Your task to perform on an android device: Add razer deathadder to the cart on costco Image 0: 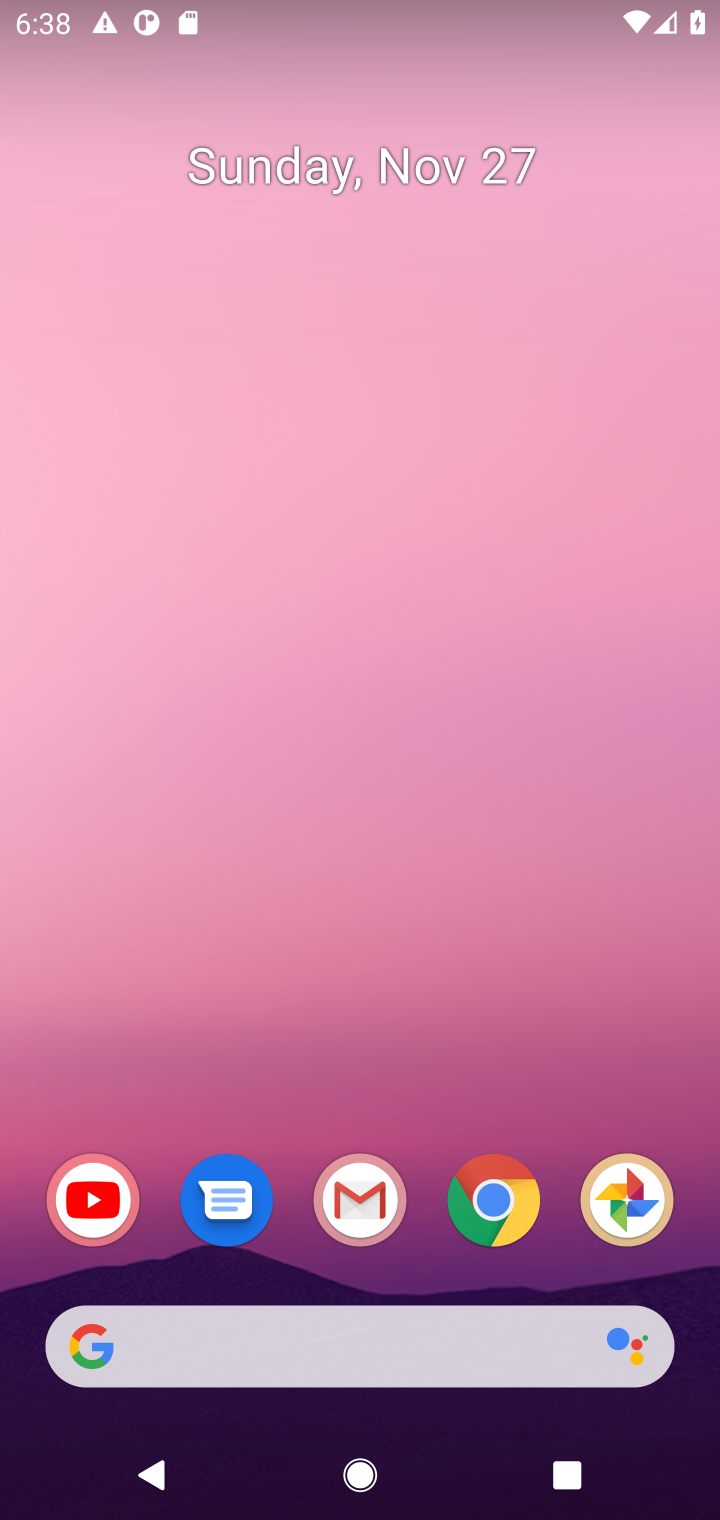
Step 0: click (494, 1229)
Your task to perform on an android device: Add razer deathadder to the cart on costco Image 1: 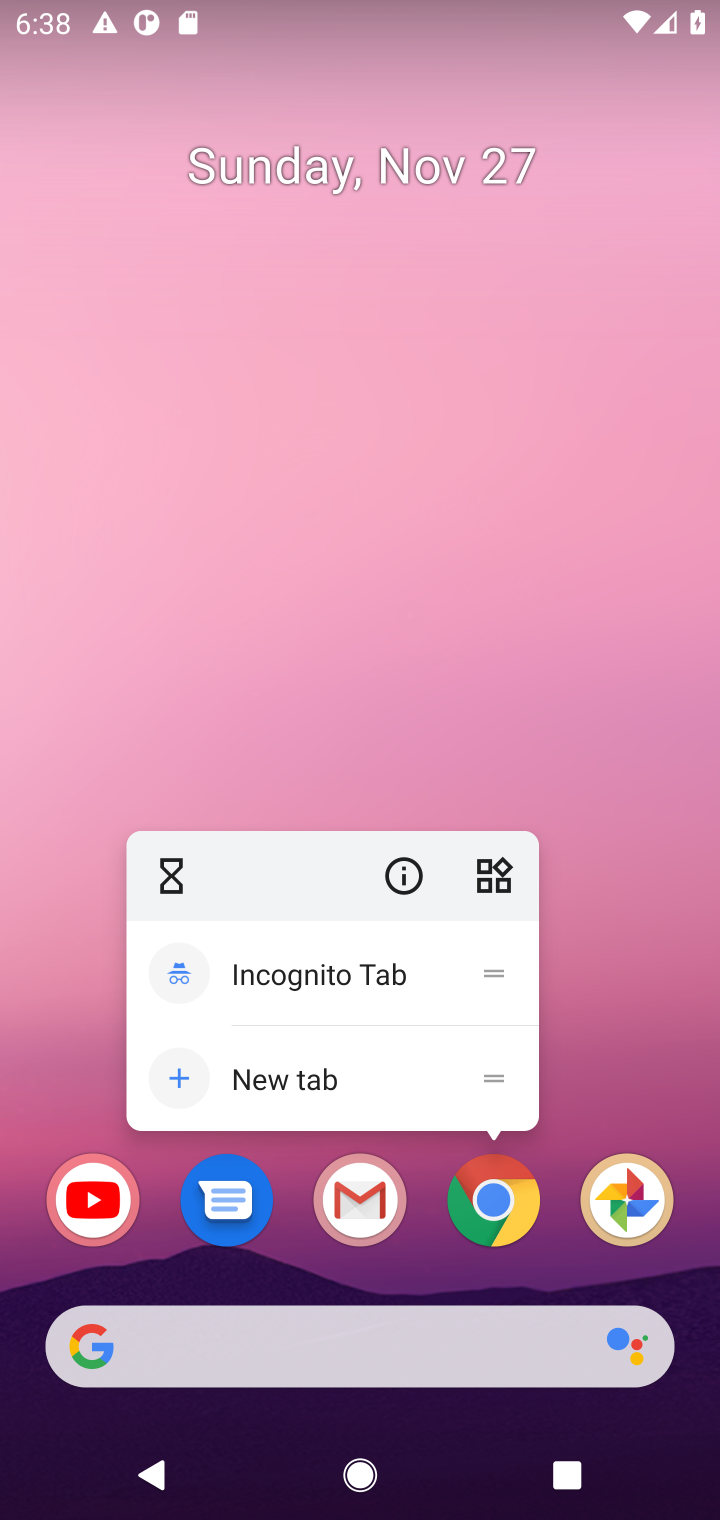
Step 1: click (497, 1204)
Your task to perform on an android device: Add razer deathadder to the cart on costco Image 2: 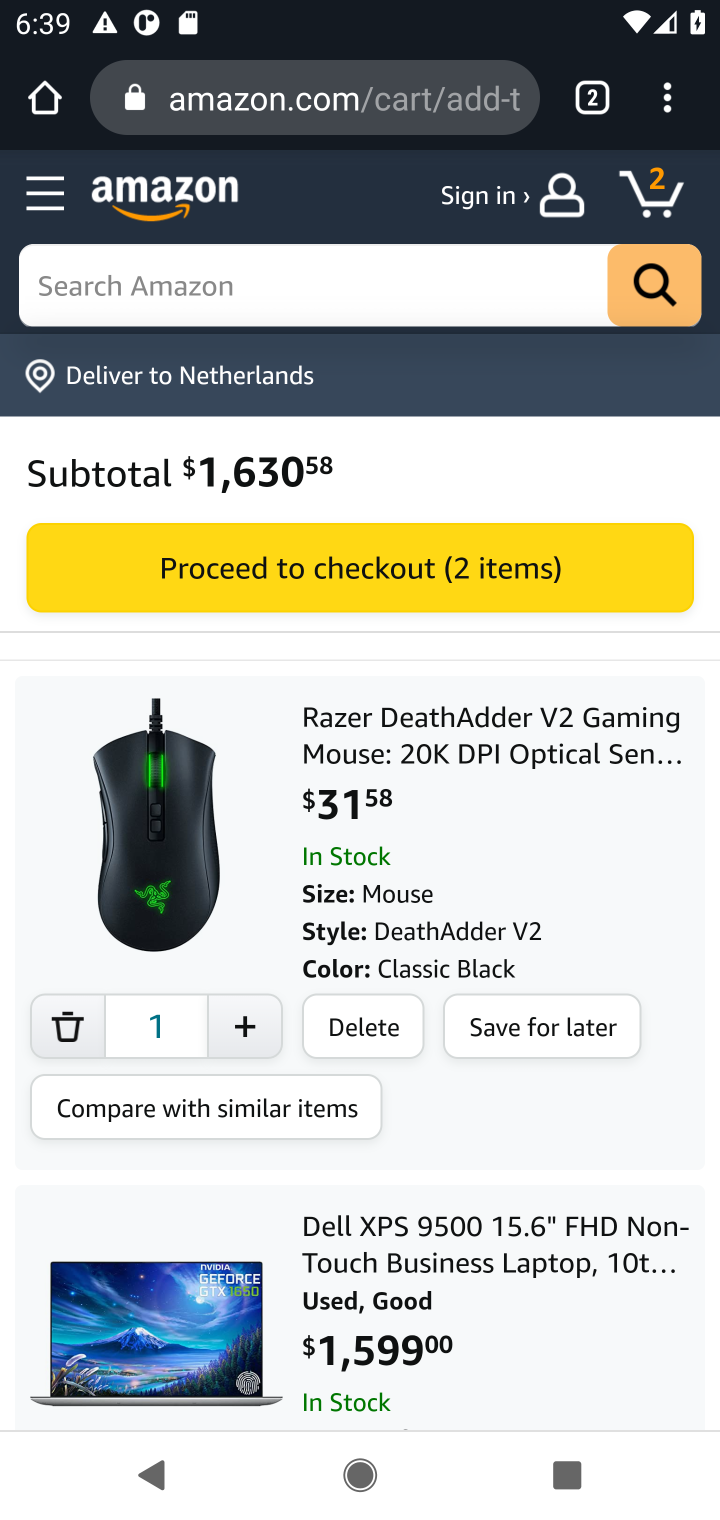
Step 2: click (319, 110)
Your task to perform on an android device: Add razer deathadder to the cart on costco Image 3: 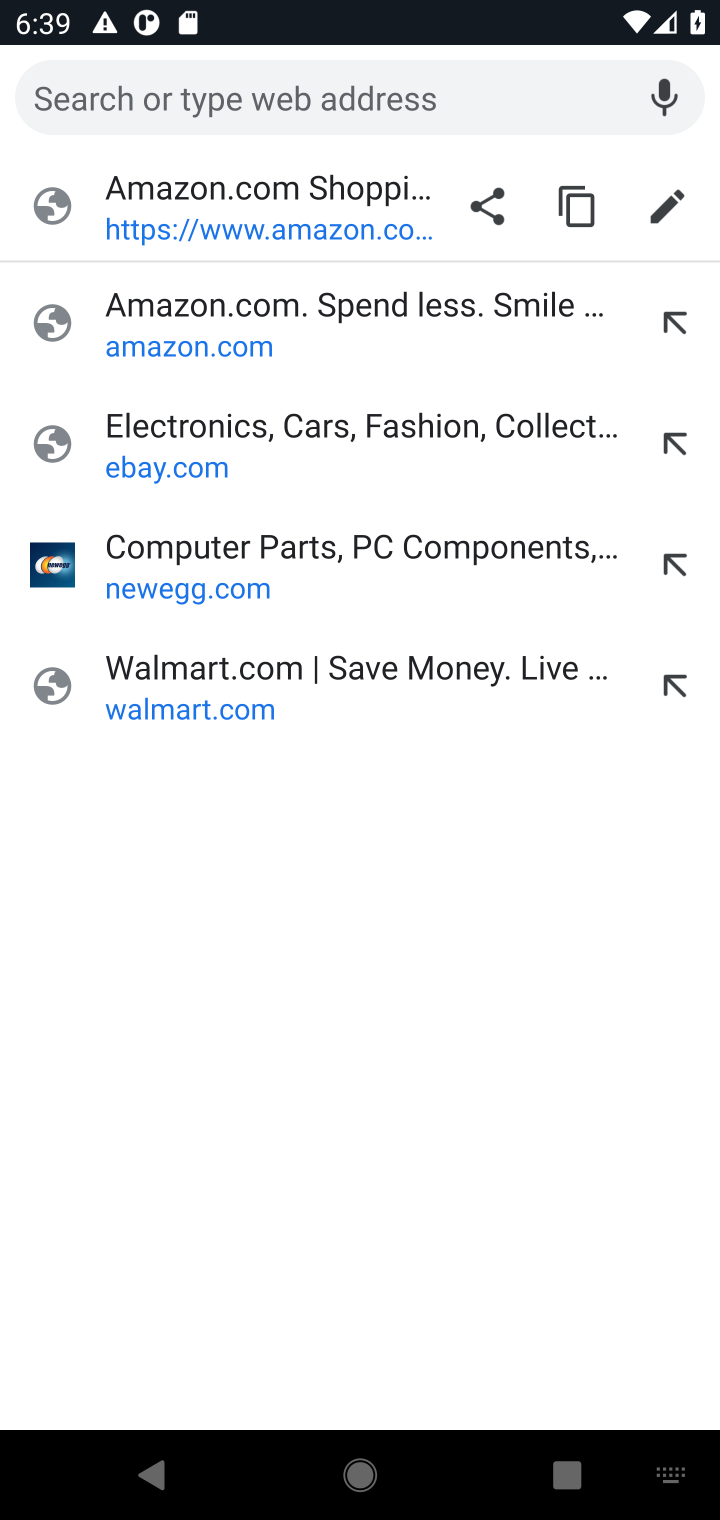
Step 3: type "costco.com"
Your task to perform on an android device: Add razer deathadder to the cart on costco Image 4: 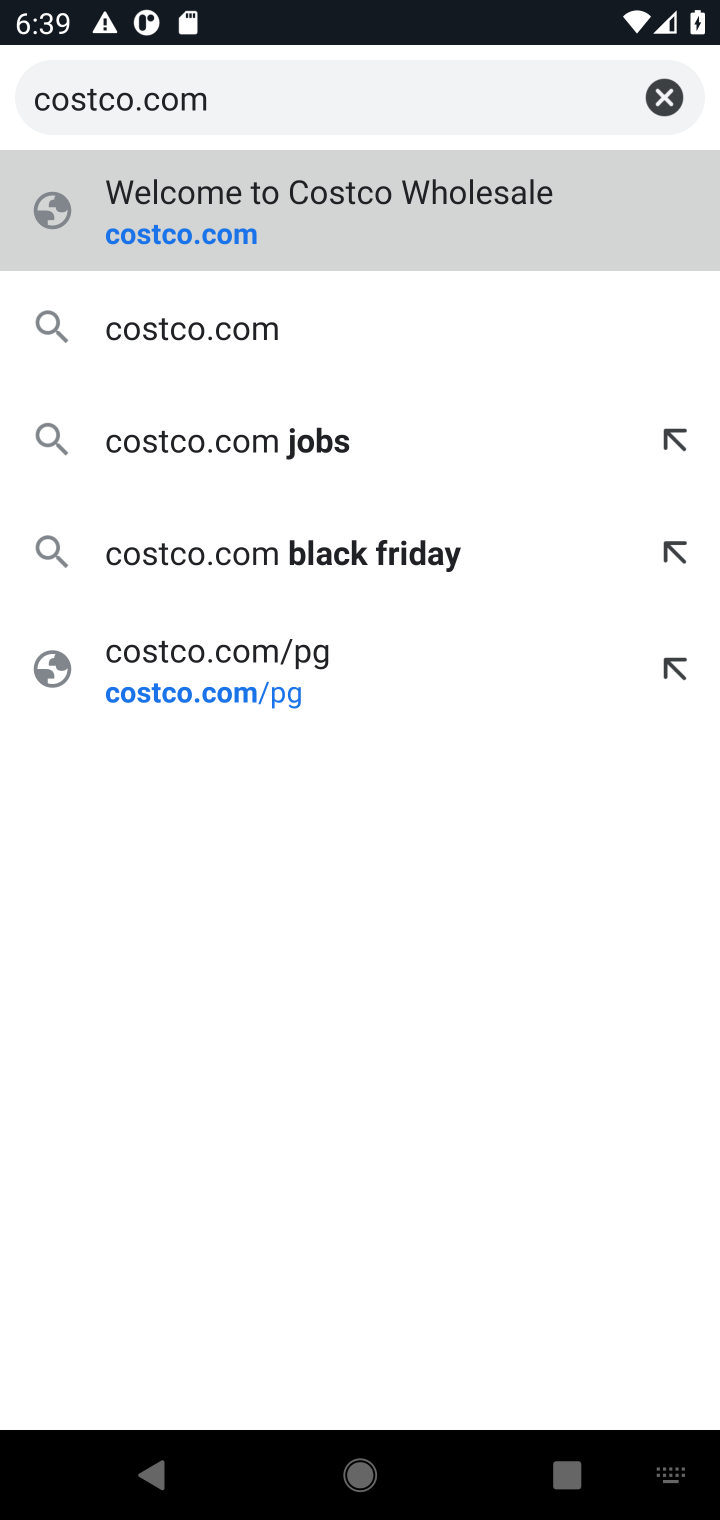
Step 4: click (130, 244)
Your task to perform on an android device: Add razer deathadder to the cart on costco Image 5: 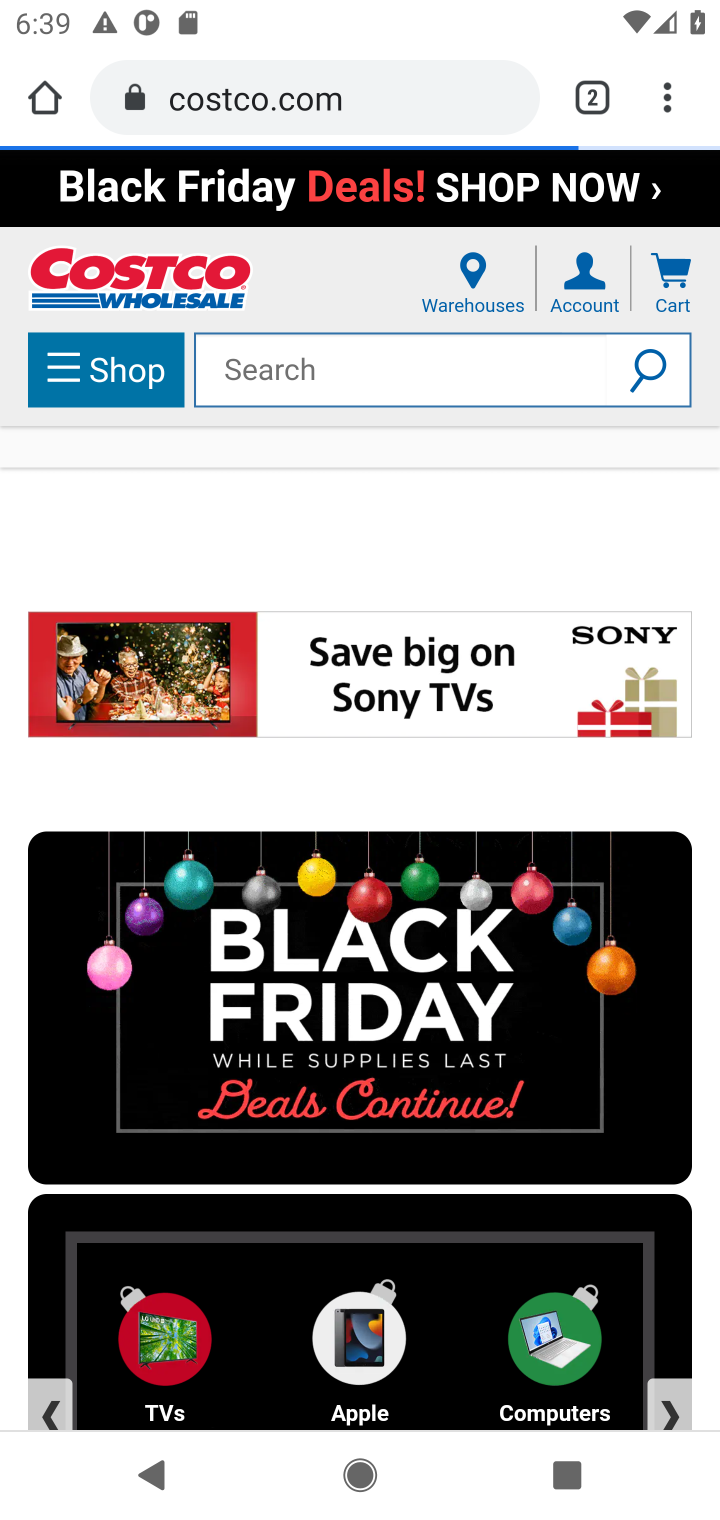
Step 5: click (281, 364)
Your task to perform on an android device: Add razer deathadder to the cart on costco Image 6: 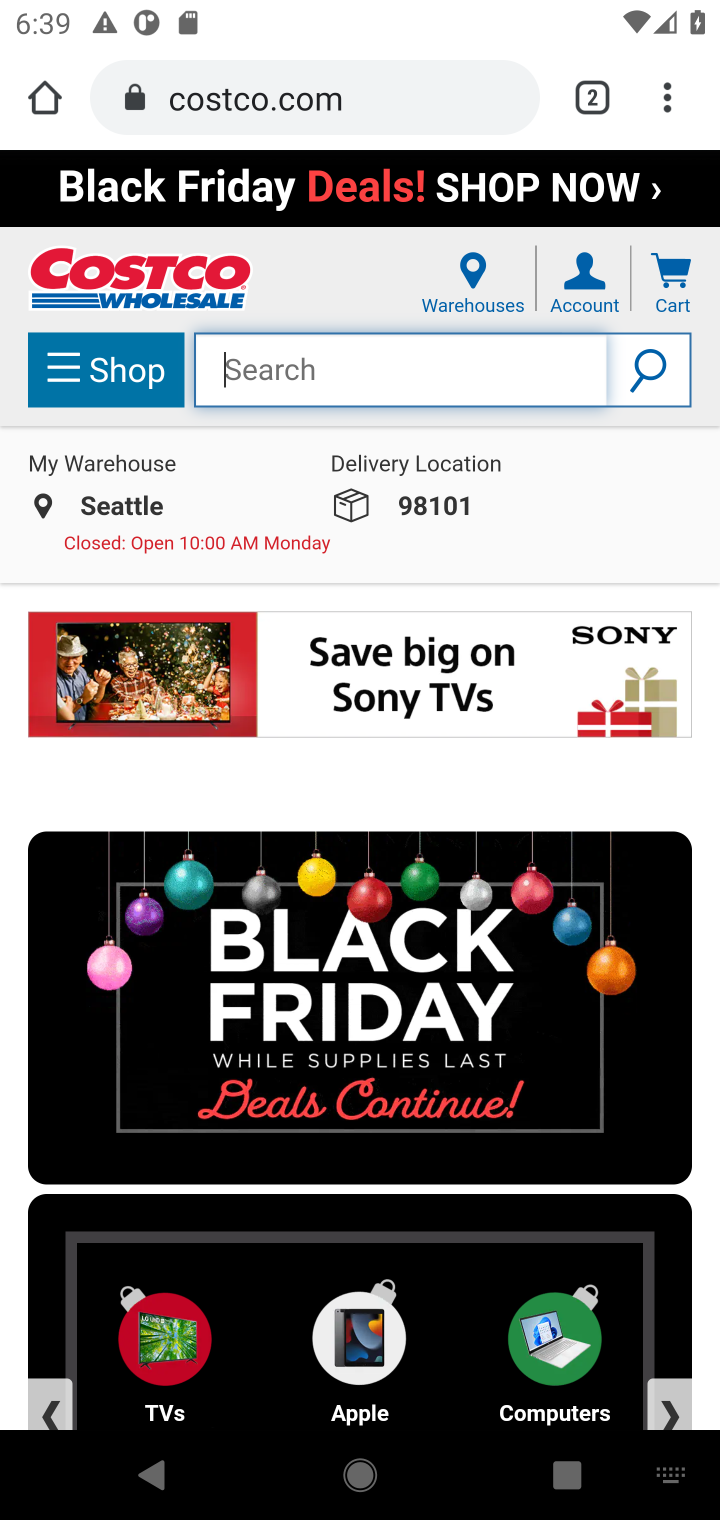
Step 6: type " razer deathadder"
Your task to perform on an android device: Add razer deathadder to the cart on costco Image 7: 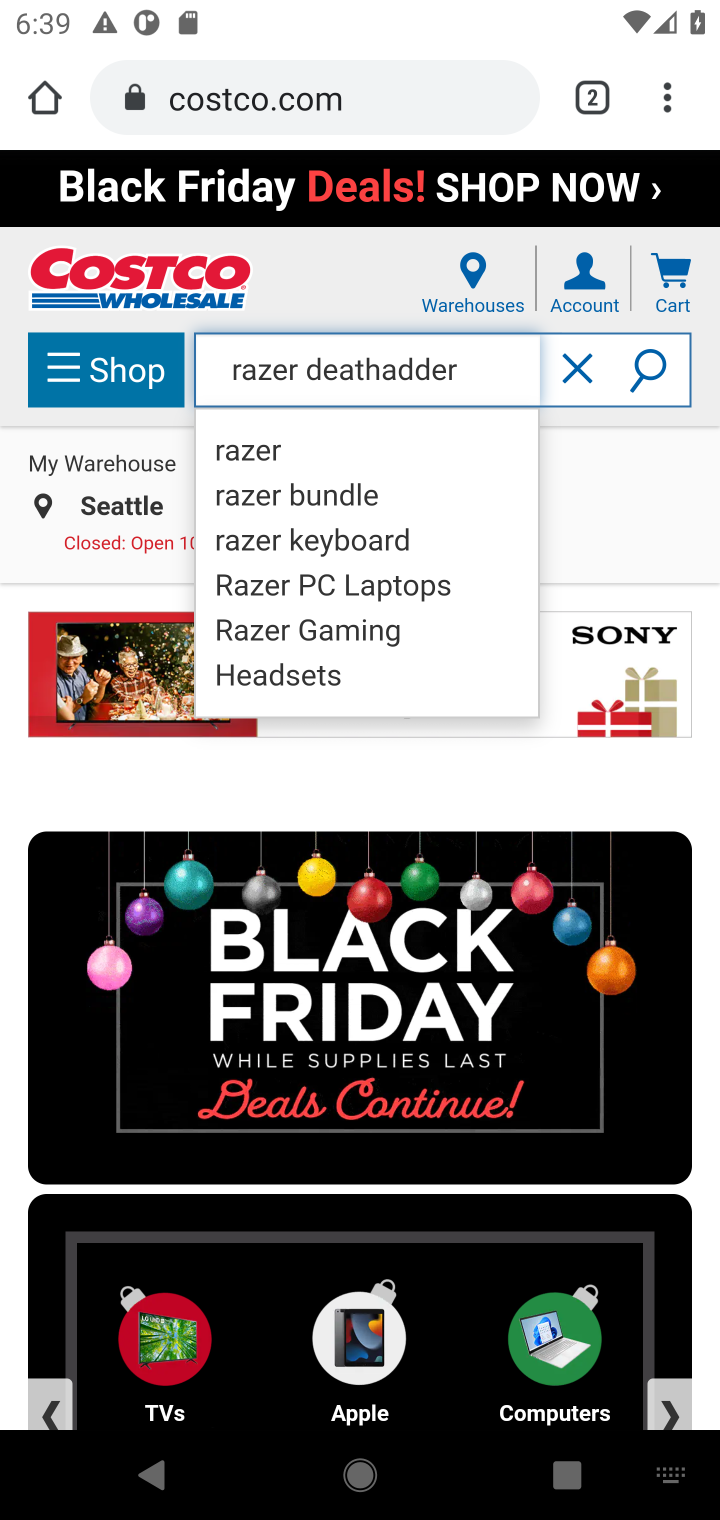
Step 7: click (660, 362)
Your task to perform on an android device: Add razer deathadder to the cart on costco Image 8: 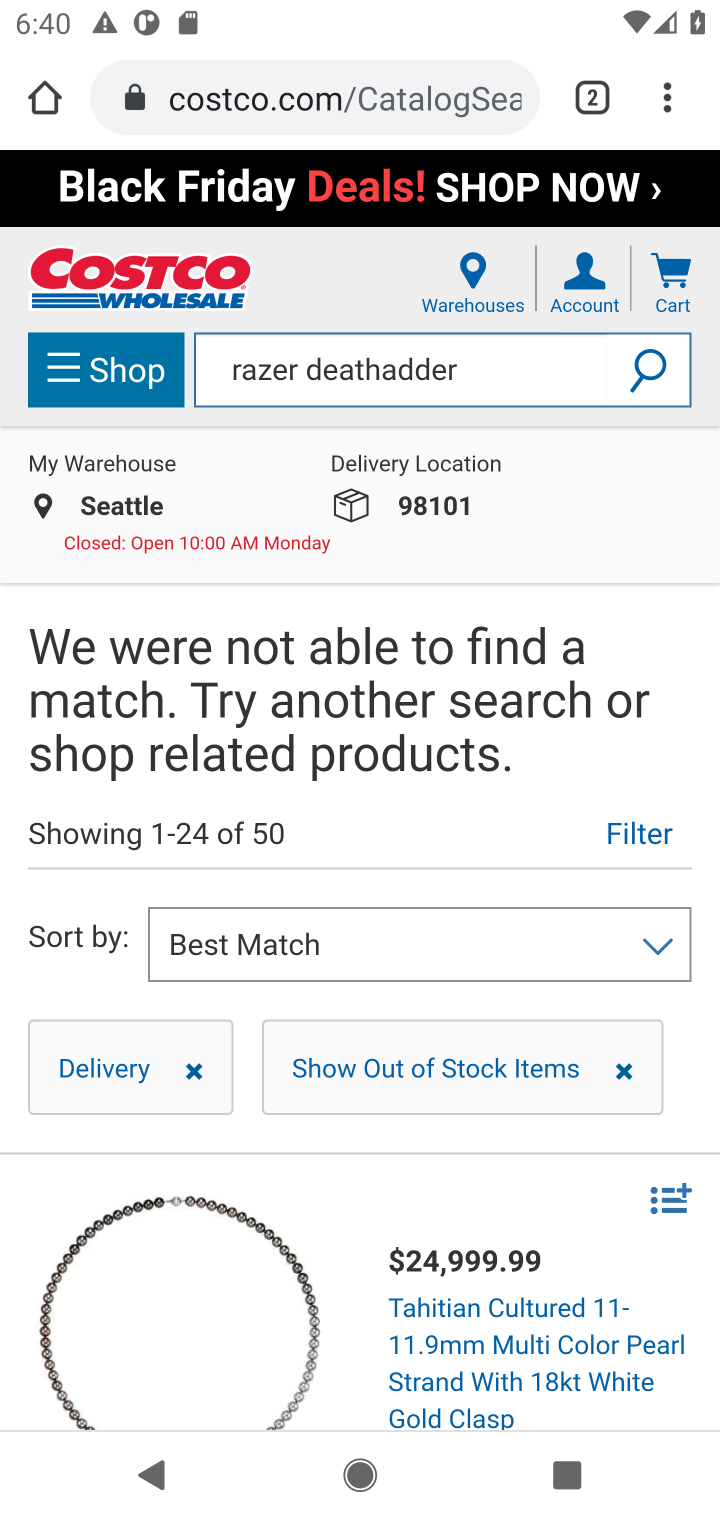
Step 8: task complete